Your task to perform on an android device: What's on my calendar today? Image 0: 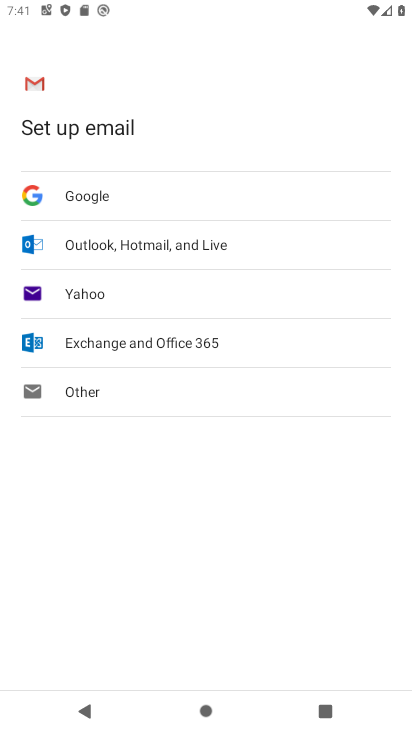
Step 0: press home button
Your task to perform on an android device: What's on my calendar today? Image 1: 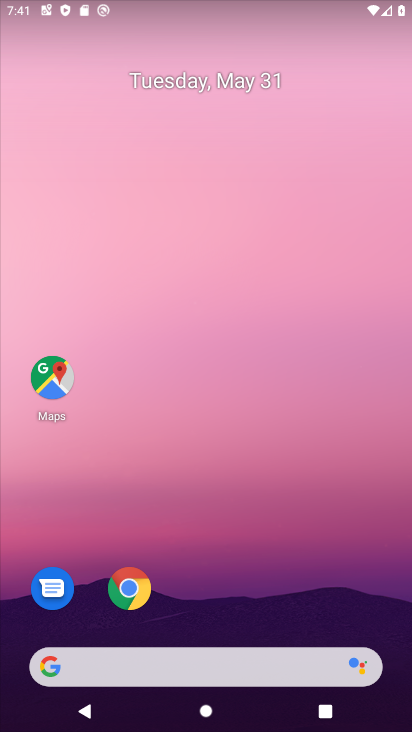
Step 1: drag from (189, 615) to (269, 208)
Your task to perform on an android device: What's on my calendar today? Image 2: 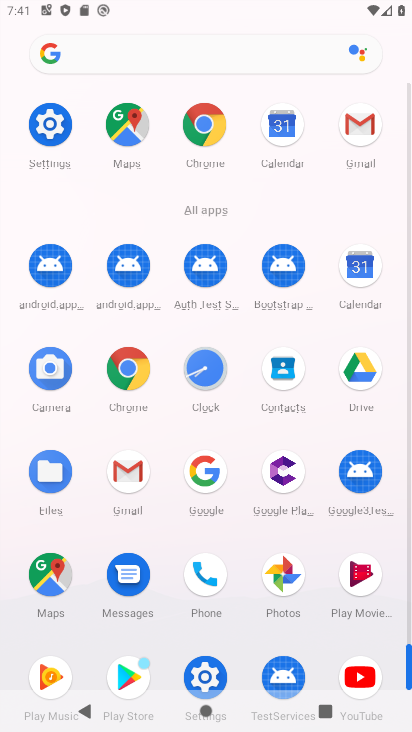
Step 2: click (372, 286)
Your task to perform on an android device: What's on my calendar today? Image 3: 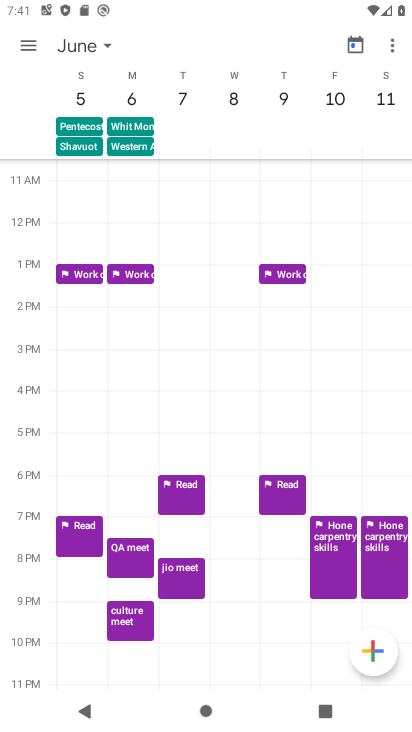
Step 3: drag from (125, 103) to (383, 126)
Your task to perform on an android device: What's on my calendar today? Image 4: 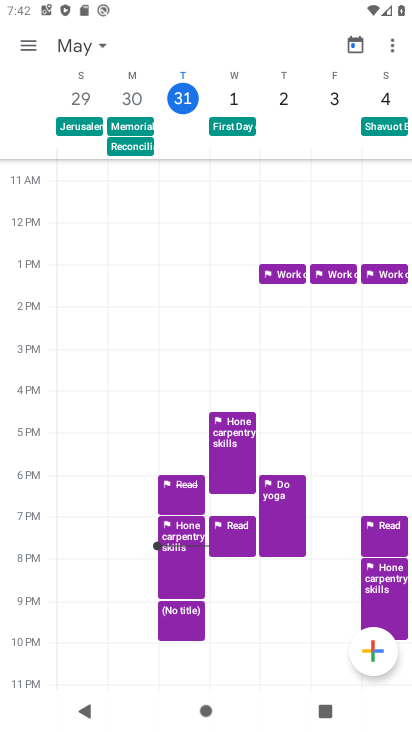
Step 4: click (21, 44)
Your task to perform on an android device: What's on my calendar today? Image 5: 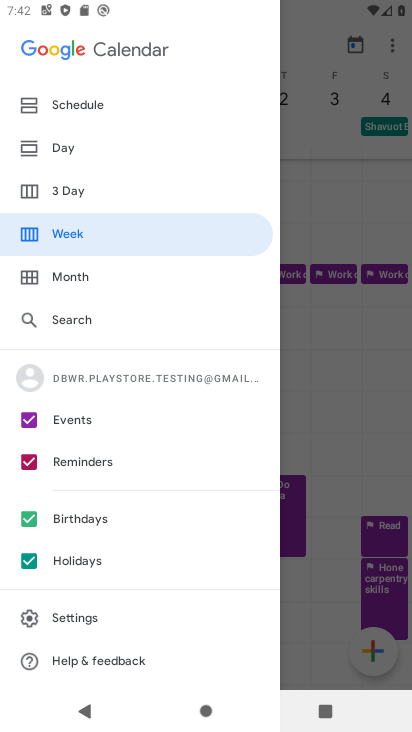
Step 5: click (61, 155)
Your task to perform on an android device: What's on my calendar today? Image 6: 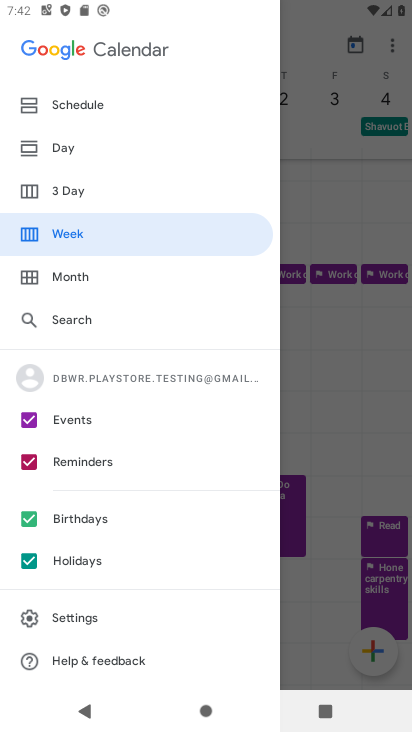
Step 6: click (67, 153)
Your task to perform on an android device: What's on my calendar today? Image 7: 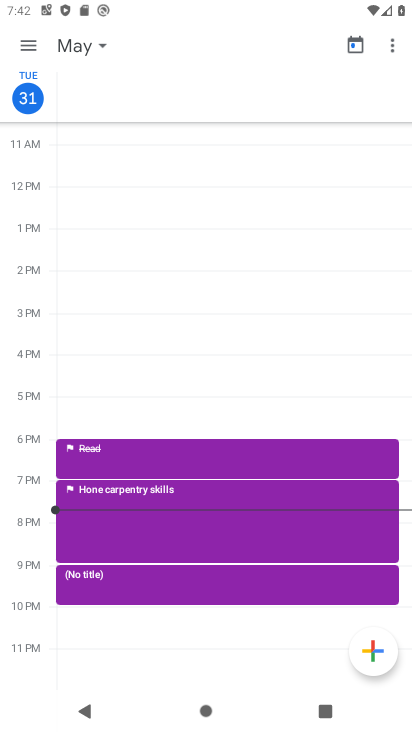
Step 7: task complete